Your task to perform on an android device: Go to Maps Image 0: 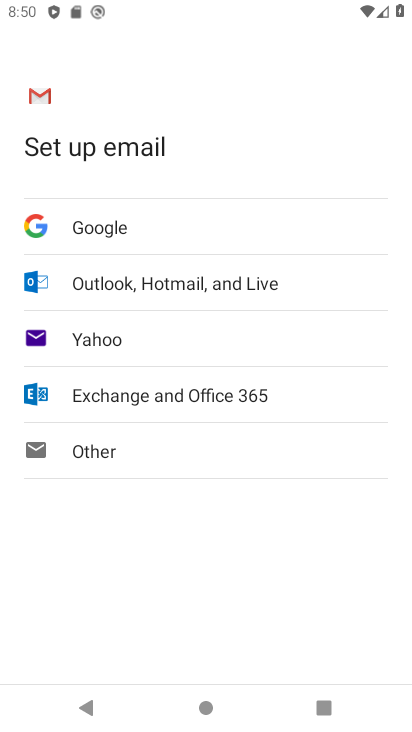
Step 0: press home button
Your task to perform on an android device: Go to Maps Image 1: 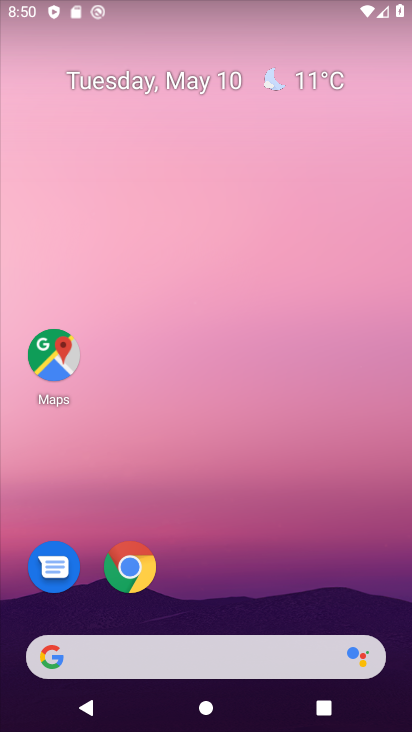
Step 1: click (54, 344)
Your task to perform on an android device: Go to Maps Image 2: 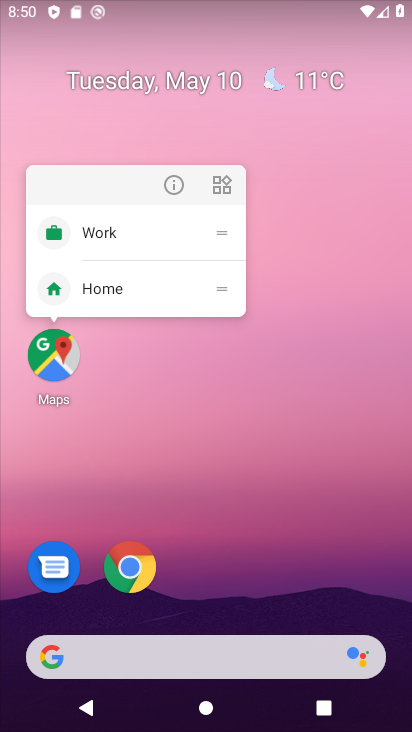
Step 2: click (55, 352)
Your task to perform on an android device: Go to Maps Image 3: 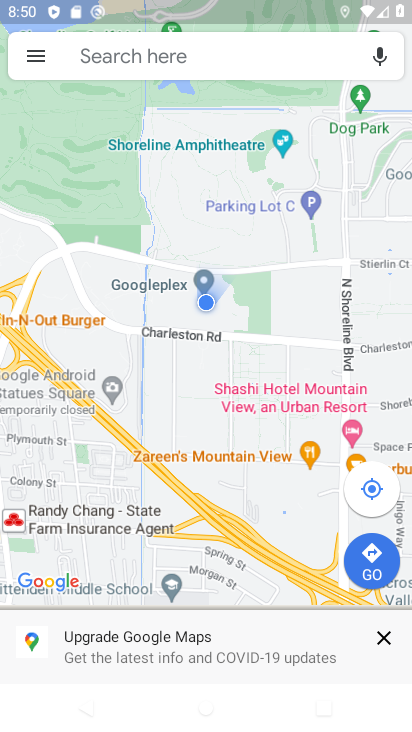
Step 3: task complete